Your task to perform on an android device: uninstall "Google Play services" Image 0: 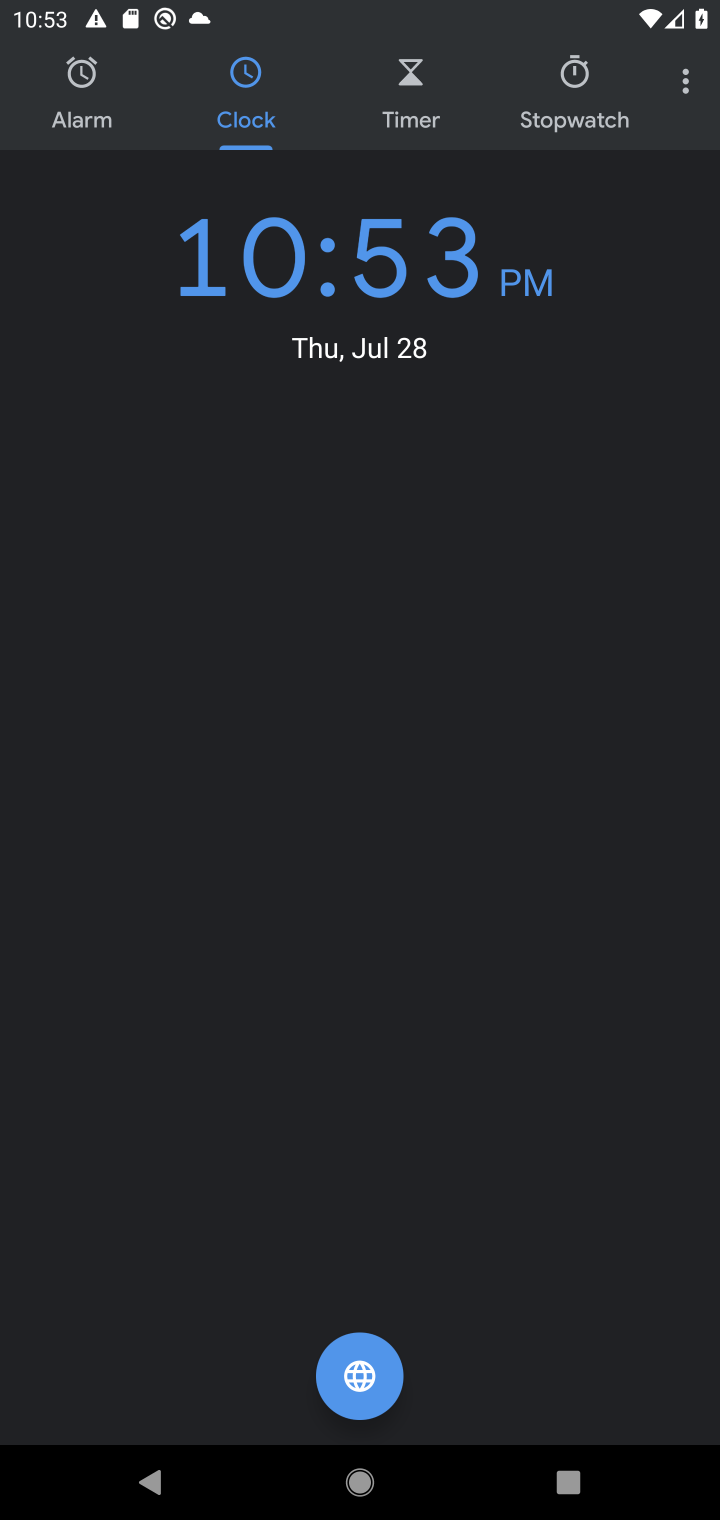
Step 0: press home button
Your task to perform on an android device: uninstall "Google Play services" Image 1: 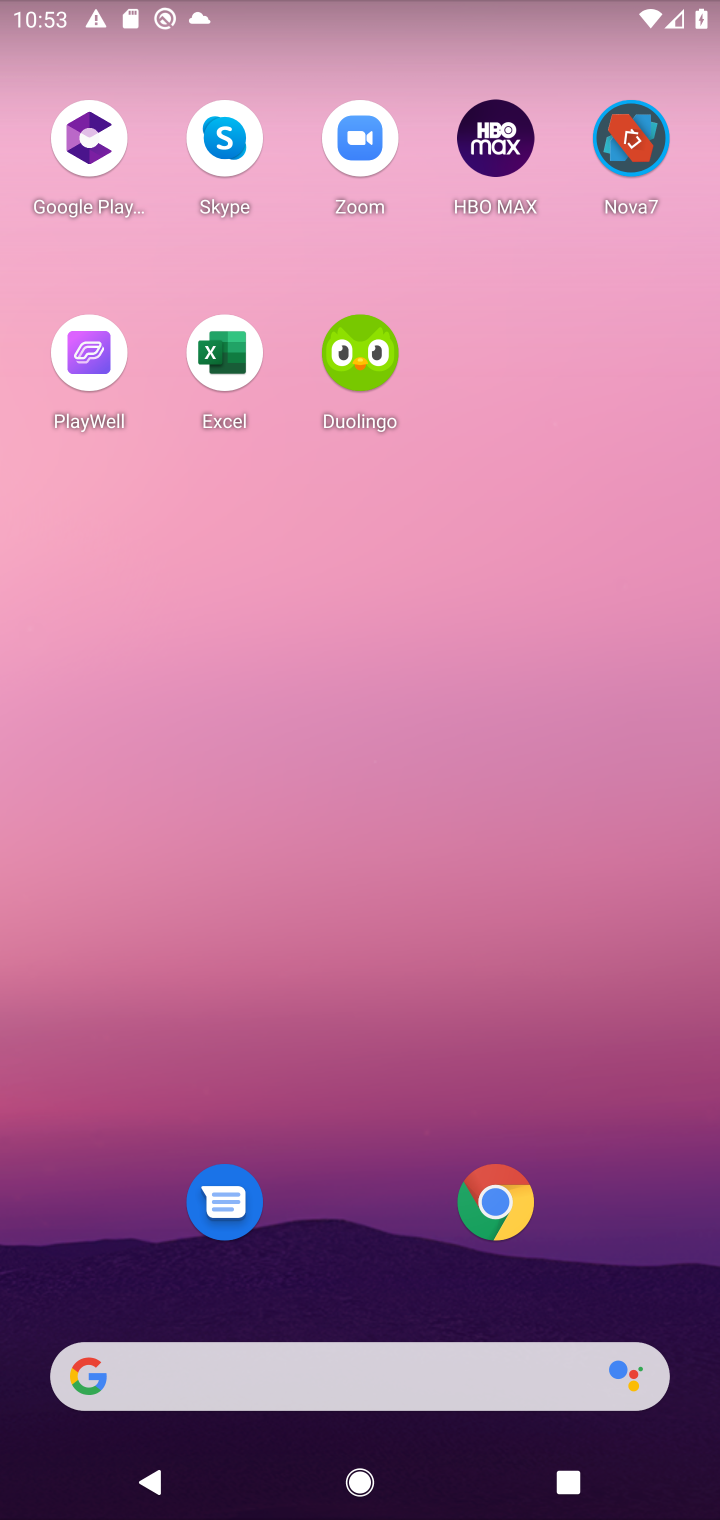
Step 1: click (322, 1360)
Your task to perform on an android device: uninstall "Google Play services" Image 2: 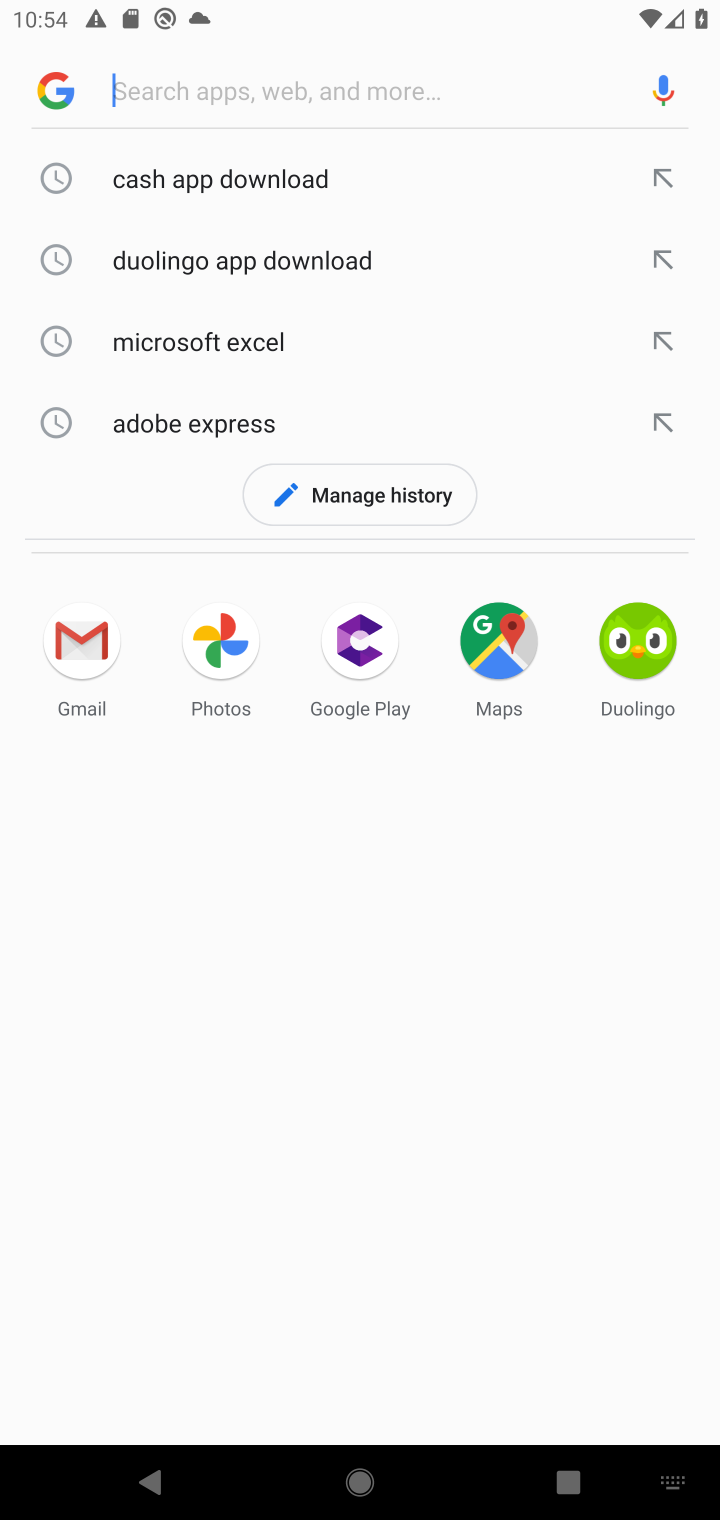
Step 2: type "google play services"
Your task to perform on an android device: uninstall "Google Play services" Image 3: 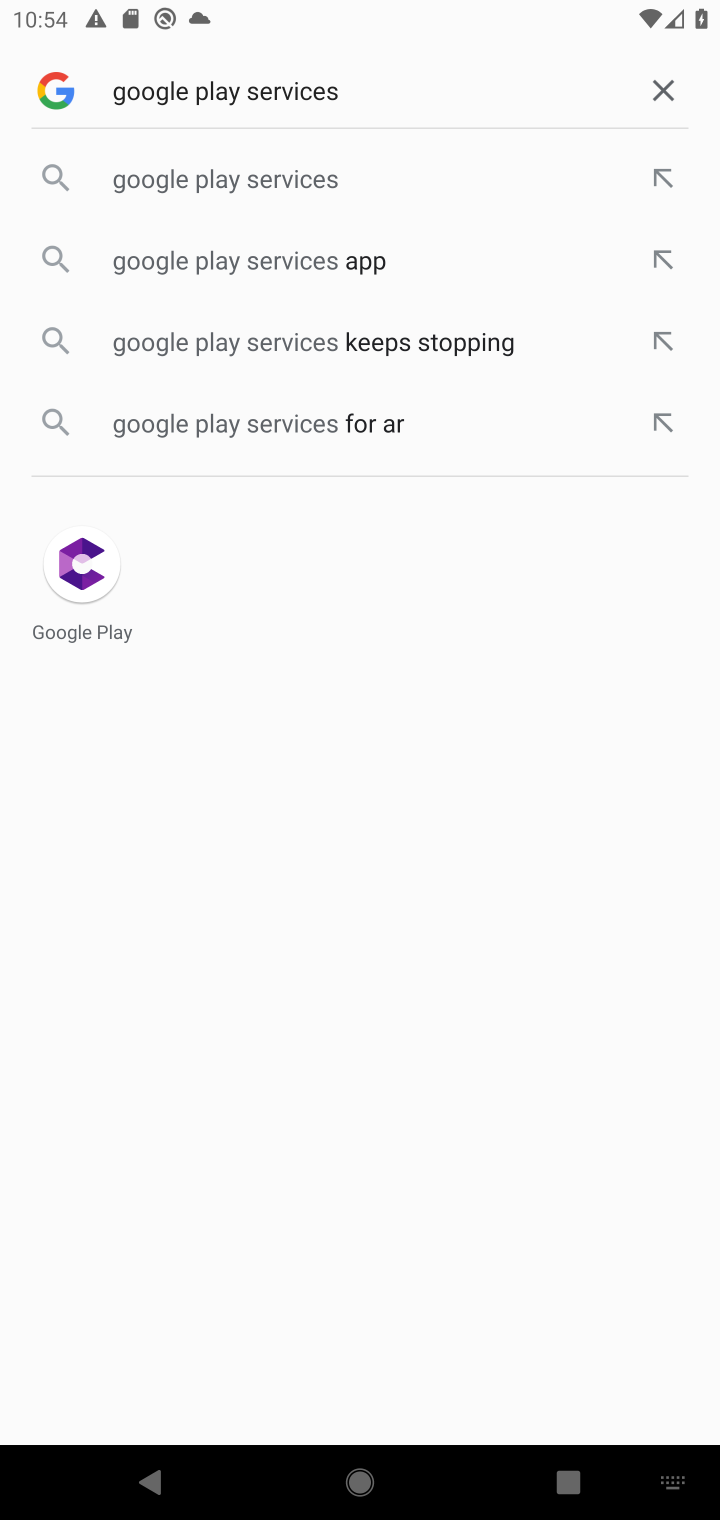
Step 3: click (674, 240)
Your task to perform on an android device: uninstall "Google Play services" Image 4: 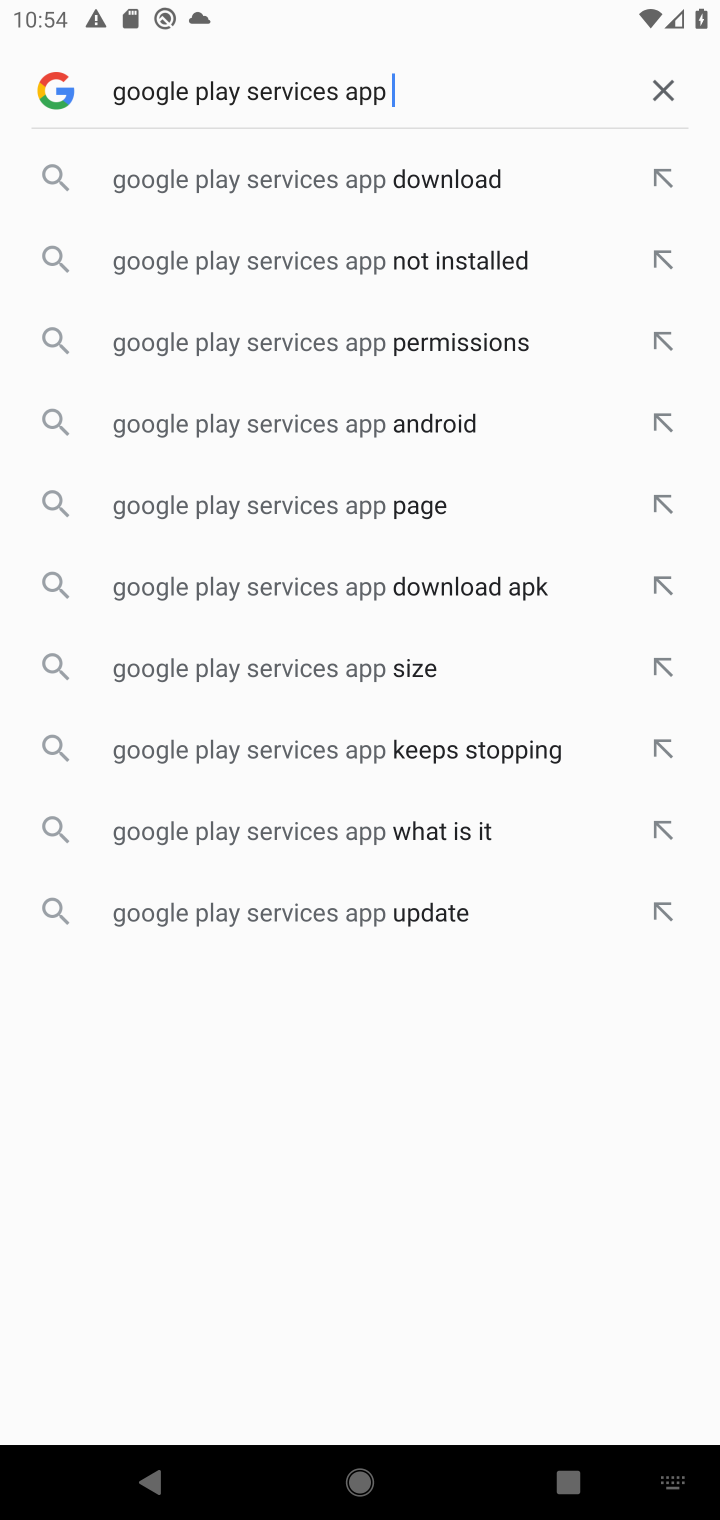
Step 4: click (467, 179)
Your task to perform on an android device: uninstall "Google Play services" Image 5: 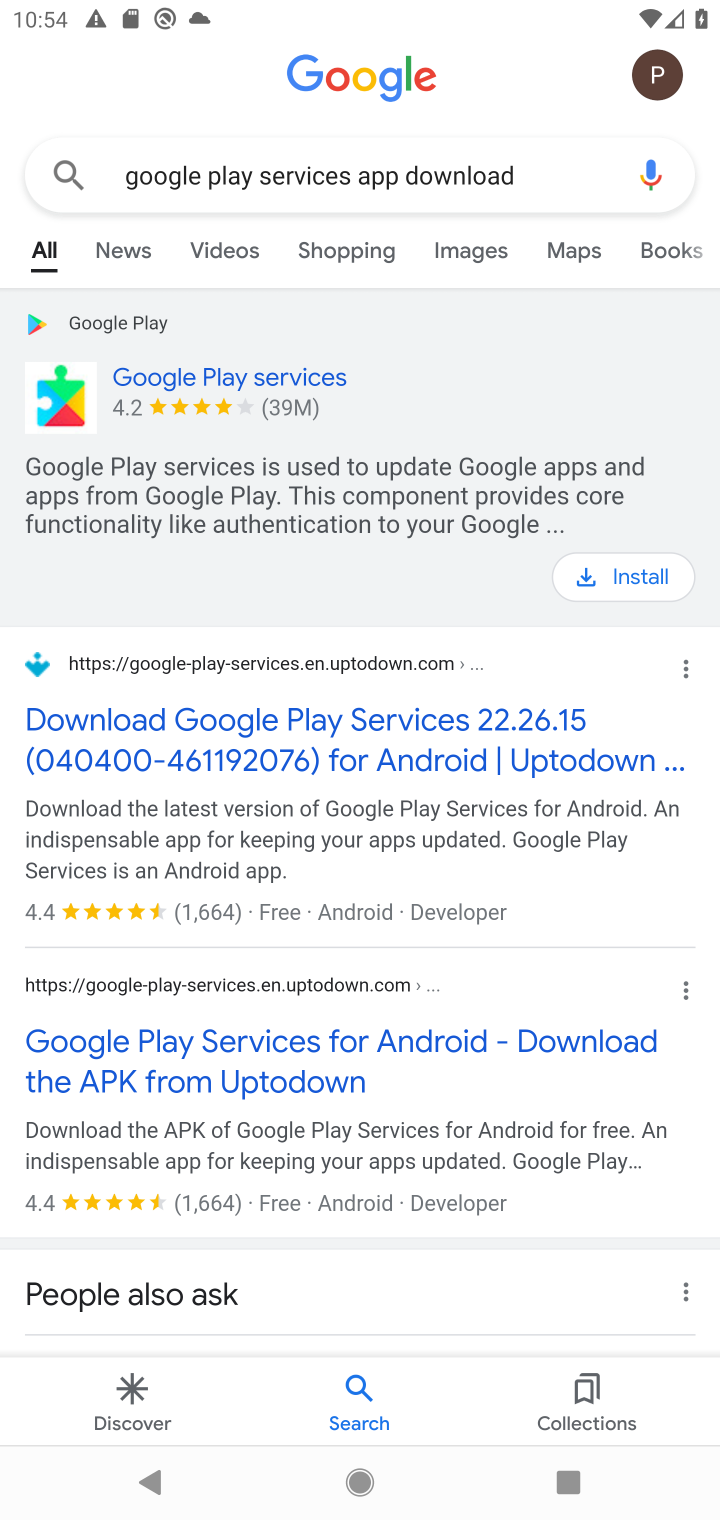
Step 5: click (639, 581)
Your task to perform on an android device: uninstall "Google Play services" Image 6: 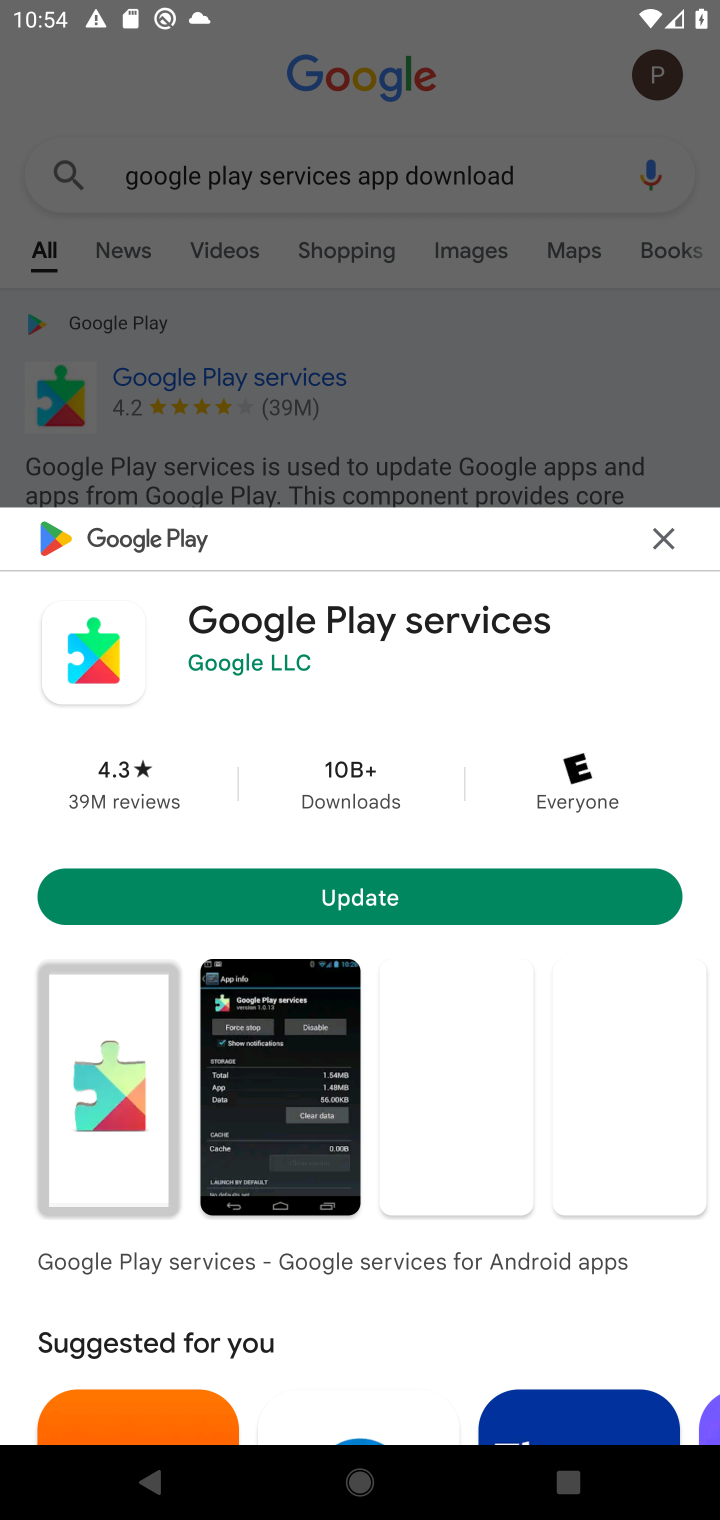
Step 6: click (500, 876)
Your task to perform on an android device: uninstall "Google Play services" Image 7: 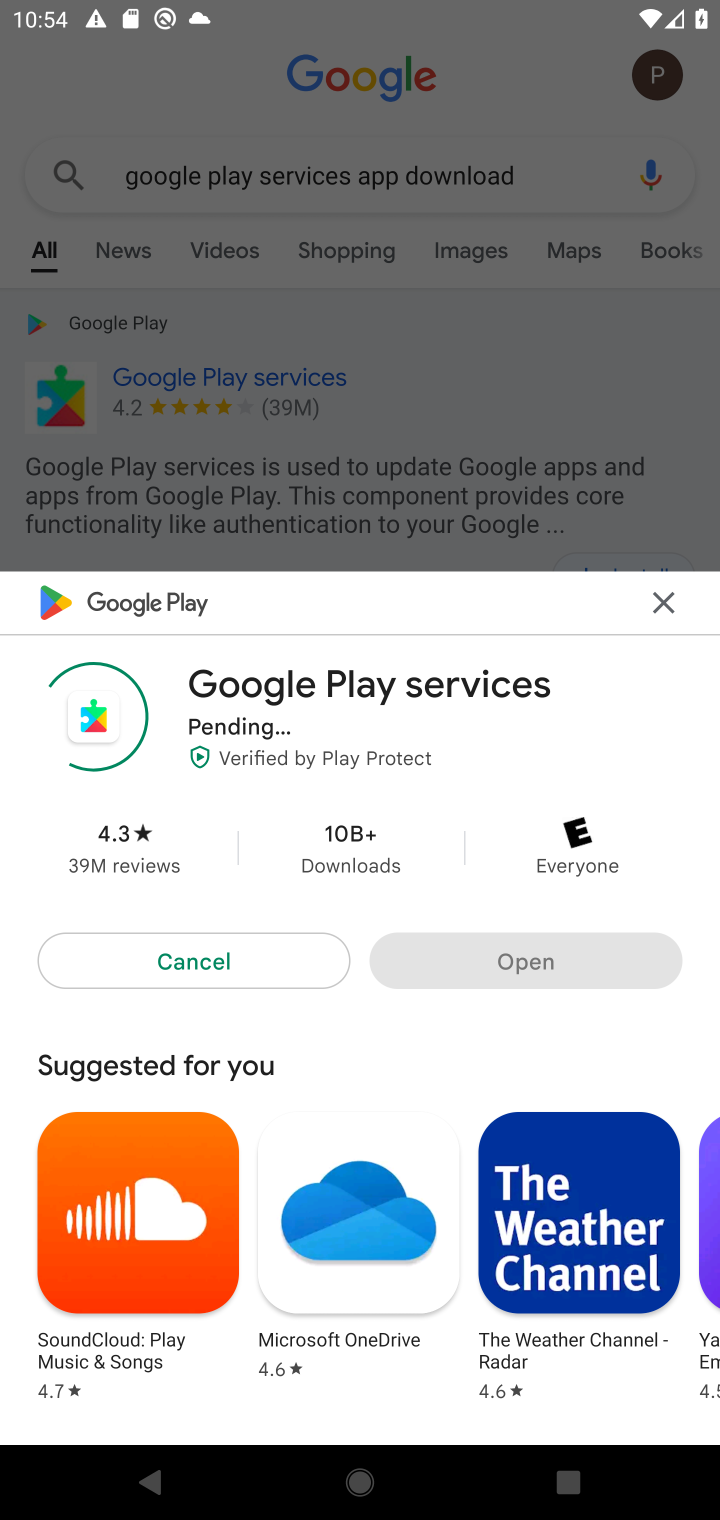
Step 7: task complete